Your task to perform on an android device: remove spam from my inbox in the gmail app Image 0: 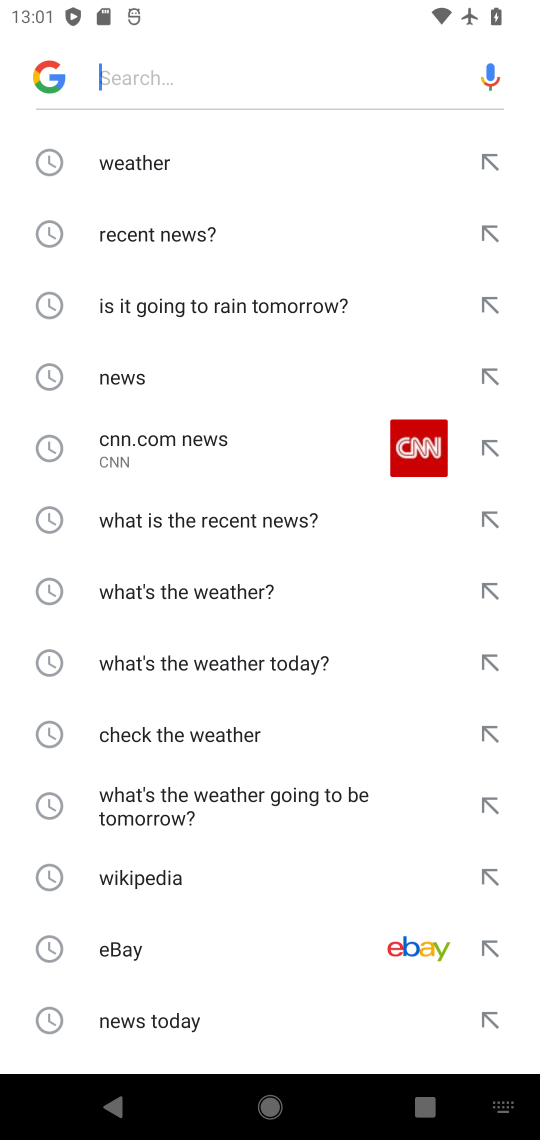
Step 0: press home button
Your task to perform on an android device: remove spam from my inbox in the gmail app Image 1: 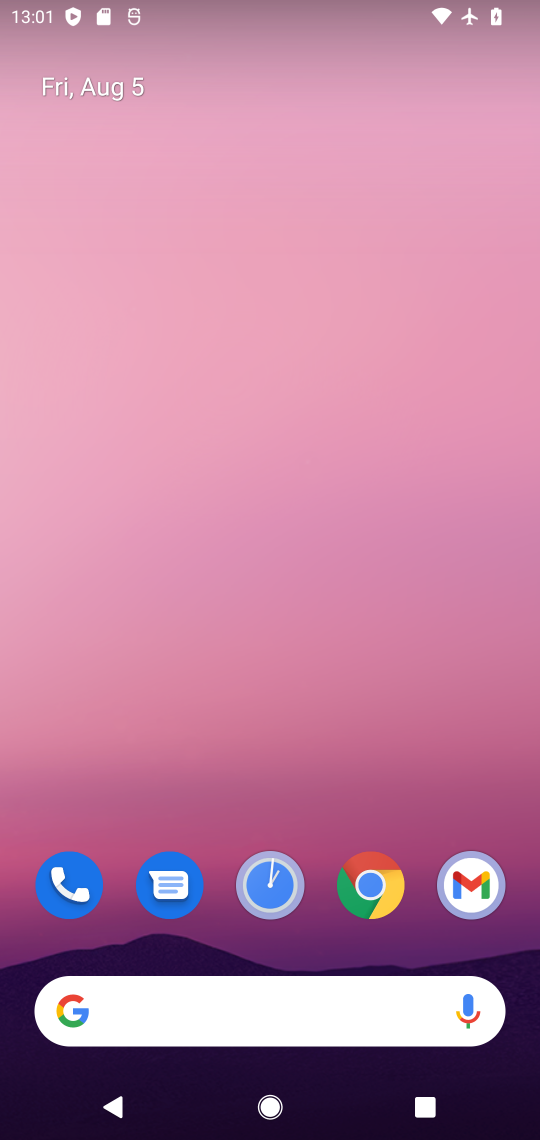
Step 1: click (496, 885)
Your task to perform on an android device: remove spam from my inbox in the gmail app Image 2: 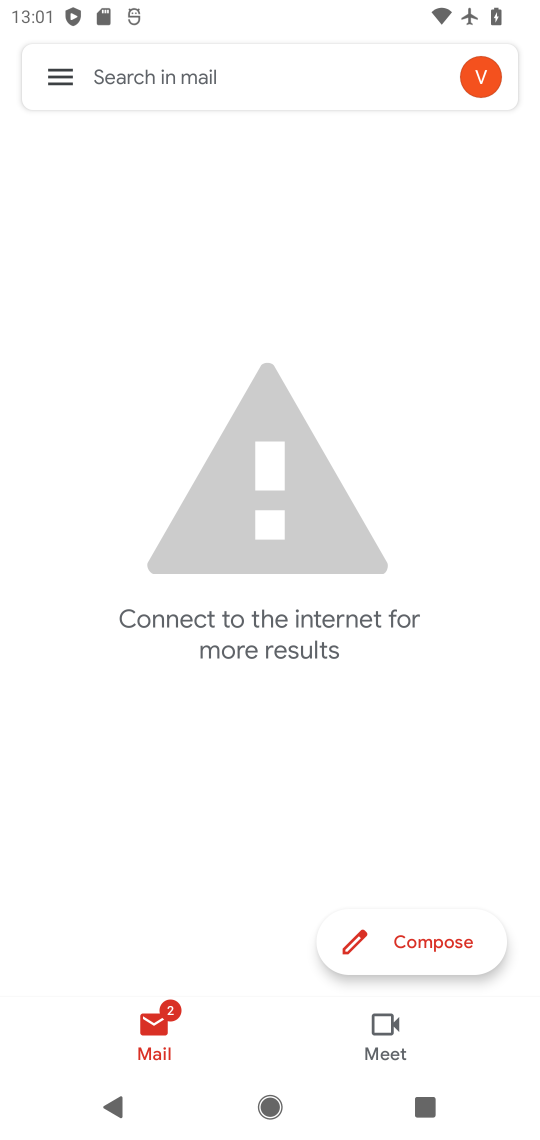
Step 2: click (64, 74)
Your task to perform on an android device: remove spam from my inbox in the gmail app Image 3: 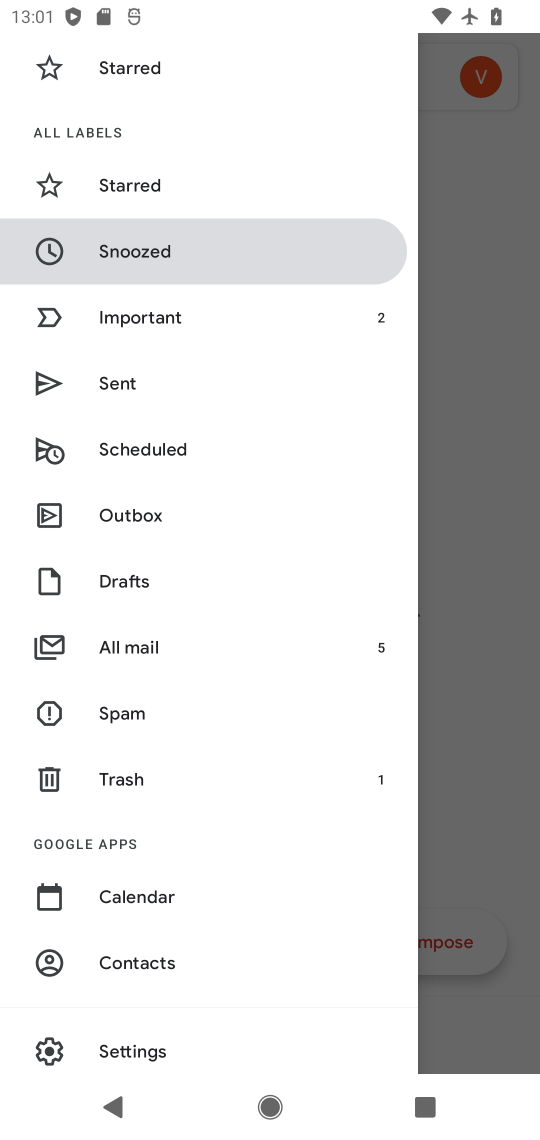
Step 3: click (127, 717)
Your task to perform on an android device: remove spam from my inbox in the gmail app Image 4: 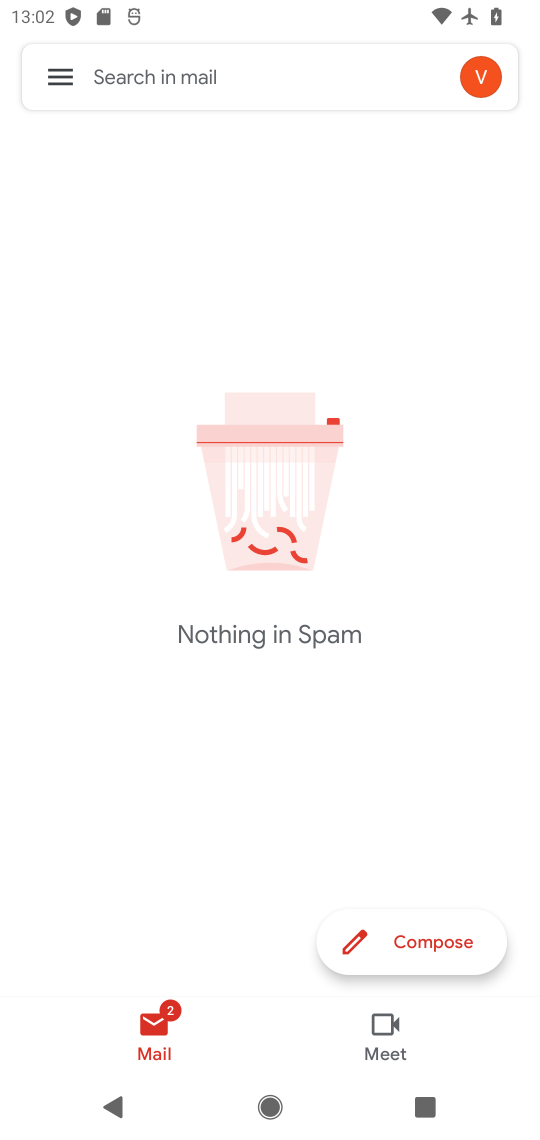
Step 4: task complete